Your task to perform on an android device: Go to settings Image 0: 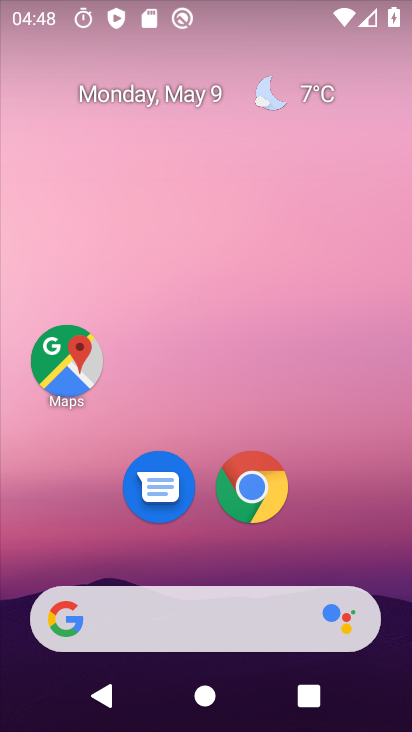
Step 0: drag from (207, 522) to (184, 37)
Your task to perform on an android device: Go to settings Image 1: 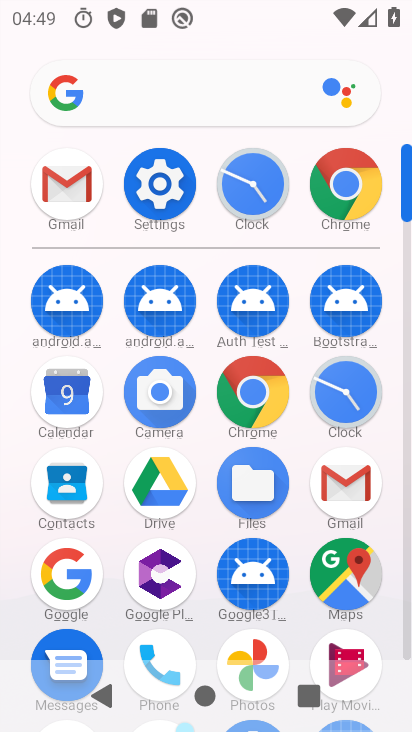
Step 1: click (168, 193)
Your task to perform on an android device: Go to settings Image 2: 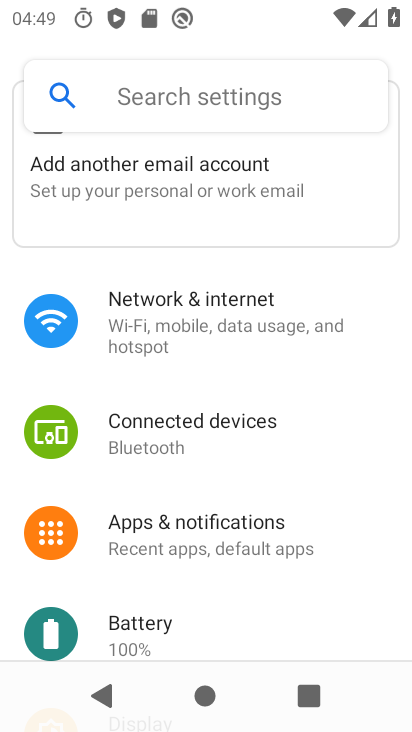
Step 2: task complete